Your task to perform on an android device: star an email in the gmail app Image 0: 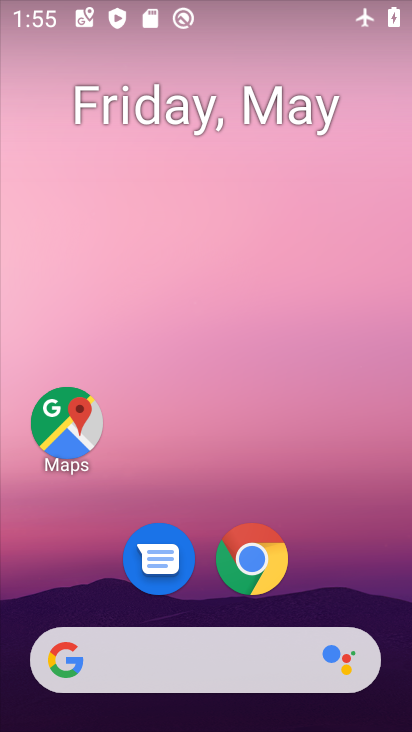
Step 0: drag from (308, 599) to (345, 209)
Your task to perform on an android device: star an email in the gmail app Image 1: 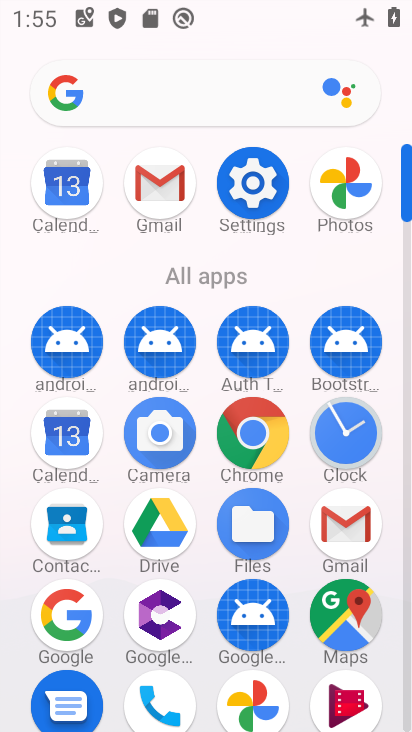
Step 1: click (344, 521)
Your task to perform on an android device: star an email in the gmail app Image 2: 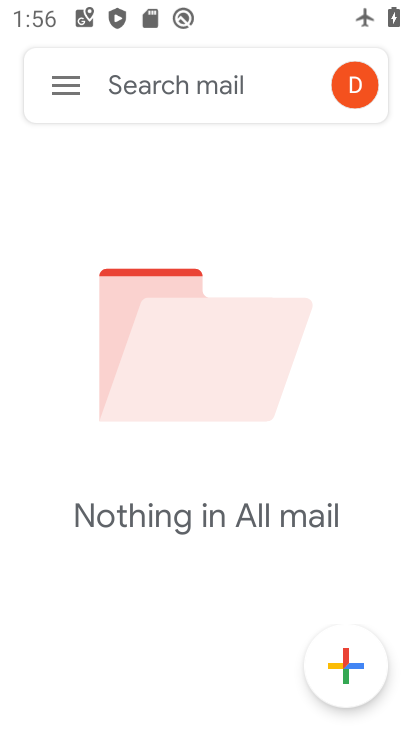
Step 2: task complete